Your task to perform on an android device: Go to eBay Image 0: 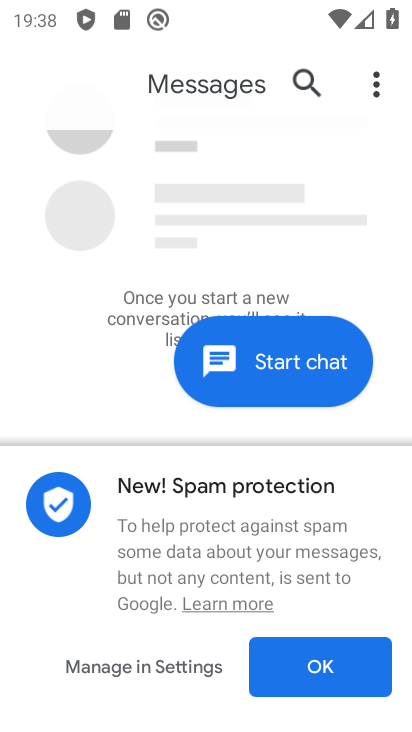
Step 0: press home button
Your task to perform on an android device: Go to eBay Image 1: 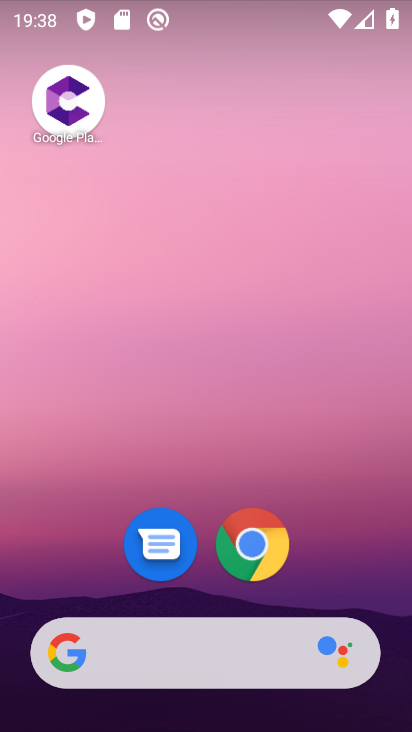
Step 1: click (187, 651)
Your task to perform on an android device: Go to eBay Image 2: 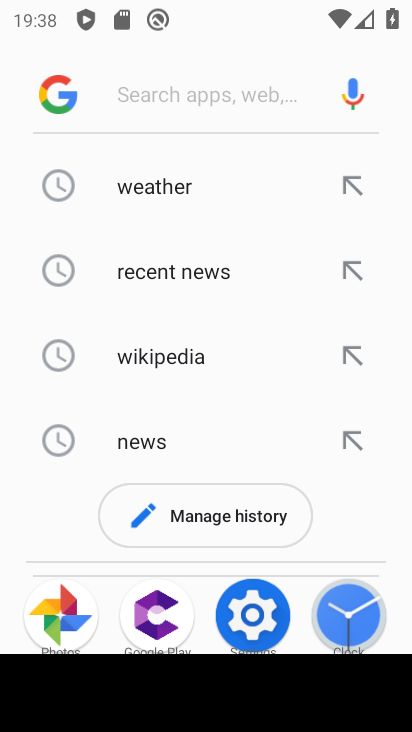
Step 2: type "ebay"
Your task to perform on an android device: Go to eBay Image 3: 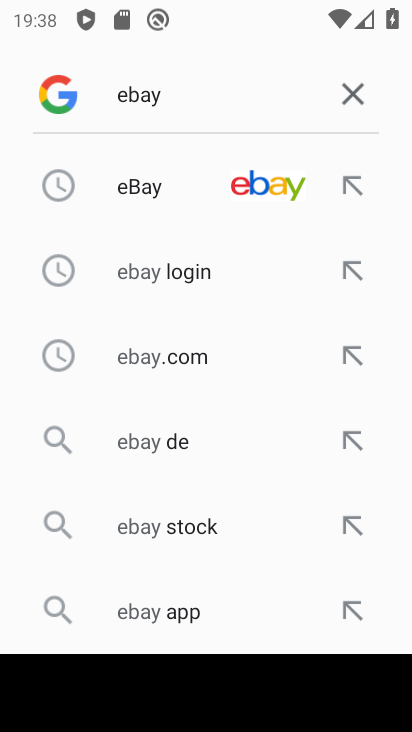
Step 3: click (127, 194)
Your task to perform on an android device: Go to eBay Image 4: 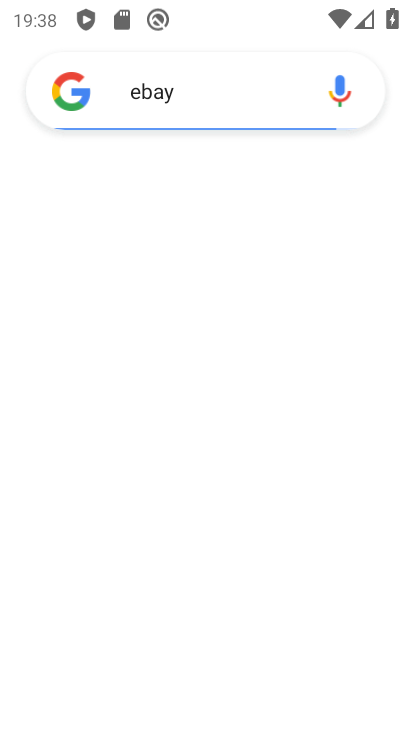
Step 4: click (127, 194)
Your task to perform on an android device: Go to eBay Image 5: 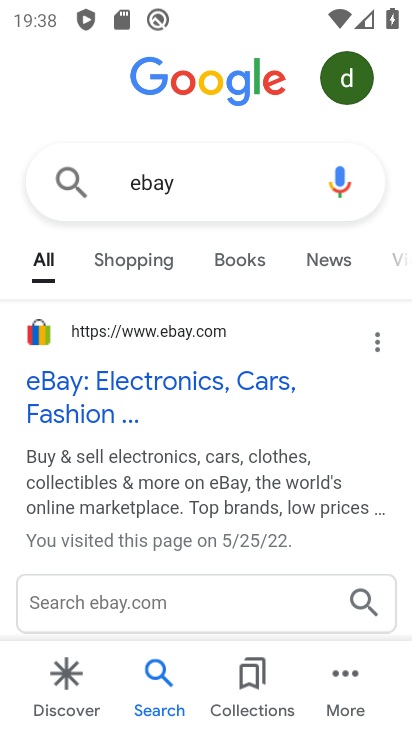
Step 5: click (88, 417)
Your task to perform on an android device: Go to eBay Image 6: 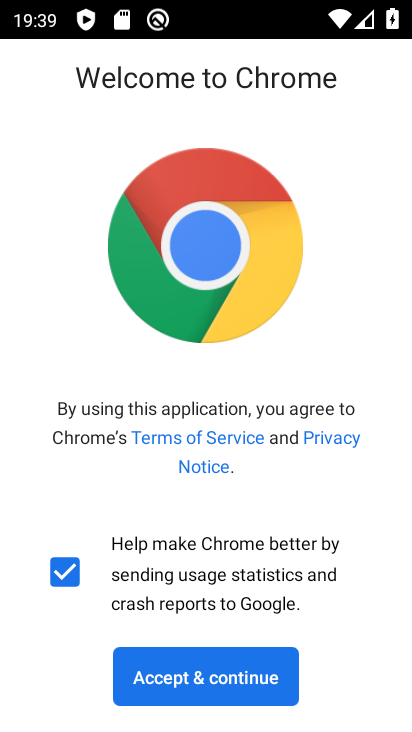
Step 6: click (261, 679)
Your task to perform on an android device: Go to eBay Image 7: 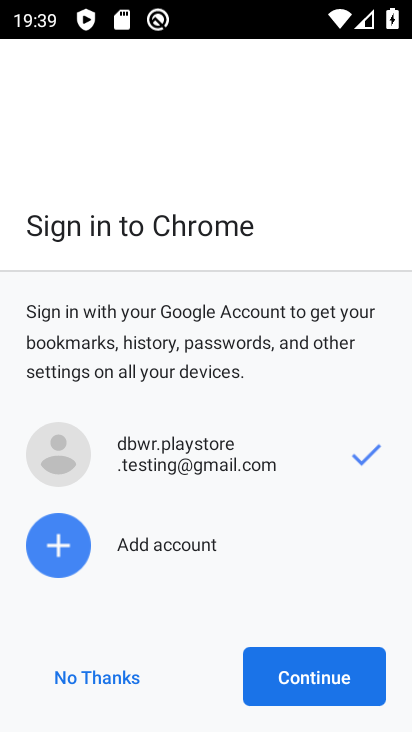
Step 7: click (261, 679)
Your task to perform on an android device: Go to eBay Image 8: 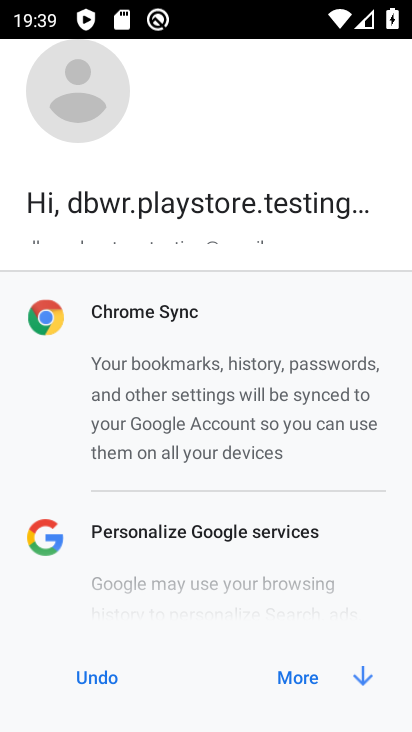
Step 8: click (261, 679)
Your task to perform on an android device: Go to eBay Image 9: 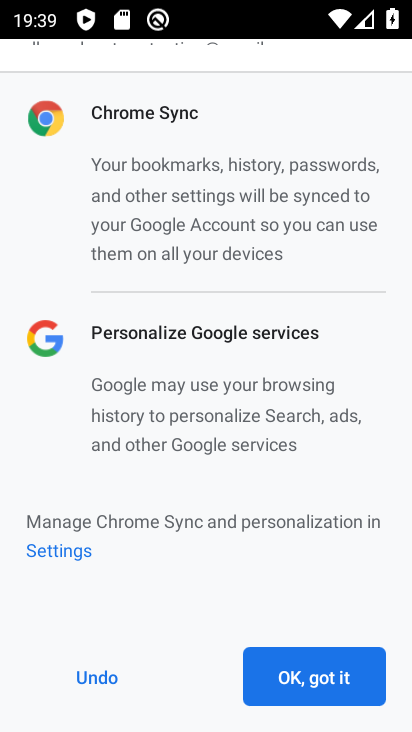
Step 9: click (261, 679)
Your task to perform on an android device: Go to eBay Image 10: 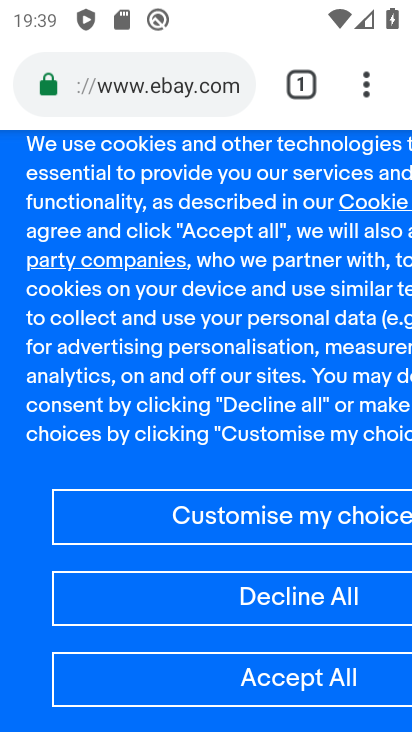
Step 10: task complete